Your task to perform on an android device: toggle priority inbox in the gmail app Image 0: 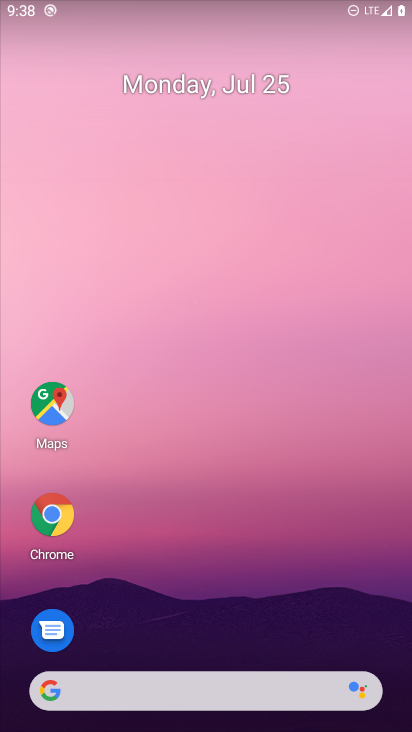
Step 0: drag from (29, 657) to (264, 0)
Your task to perform on an android device: toggle priority inbox in the gmail app Image 1: 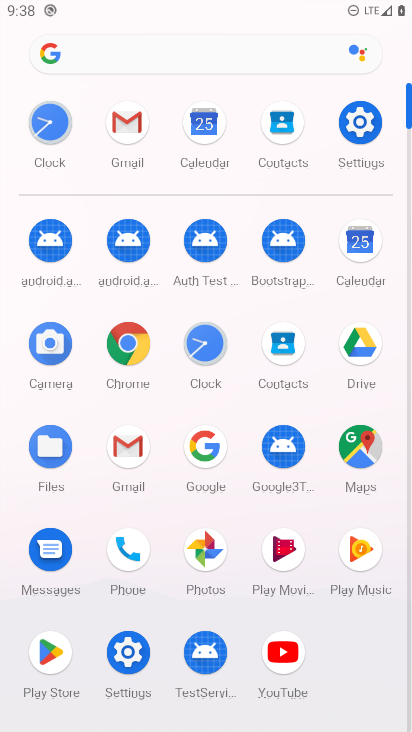
Step 1: click (126, 127)
Your task to perform on an android device: toggle priority inbox in the gmail app Image 2: 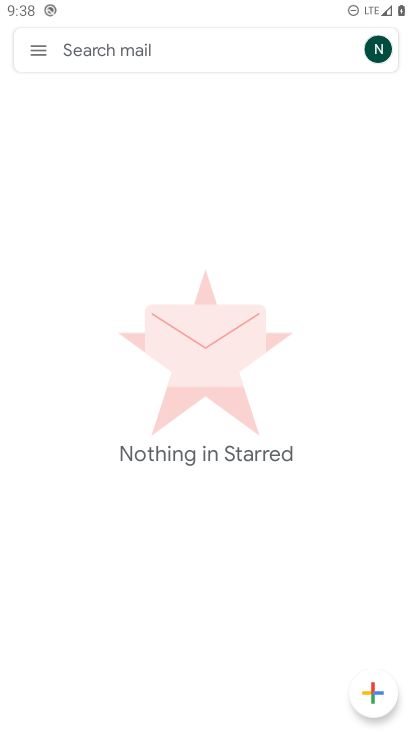
Step 2: click (43, 42)
Your task to perform on an android device: toggle priority inbox in the gmail app Image 3: 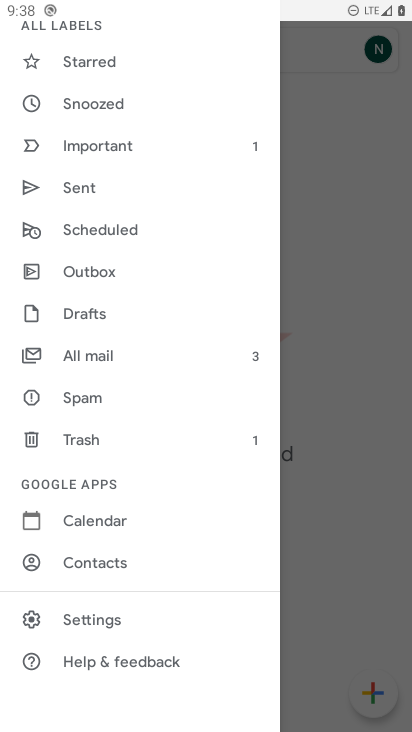
Step 3: click (113, 630)
Your task to perform on an android device: toggle priority inbox in the gmail app Image 4: 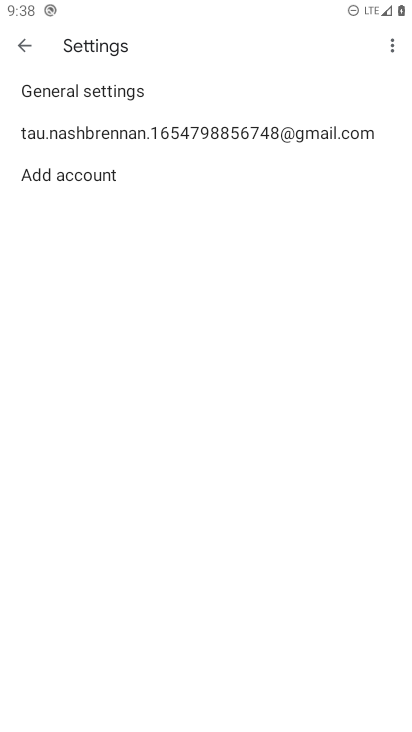
Step 4: click (82, 131)
Your task to perform on an android device: toggle priority inbox in the gmail app Image 5: 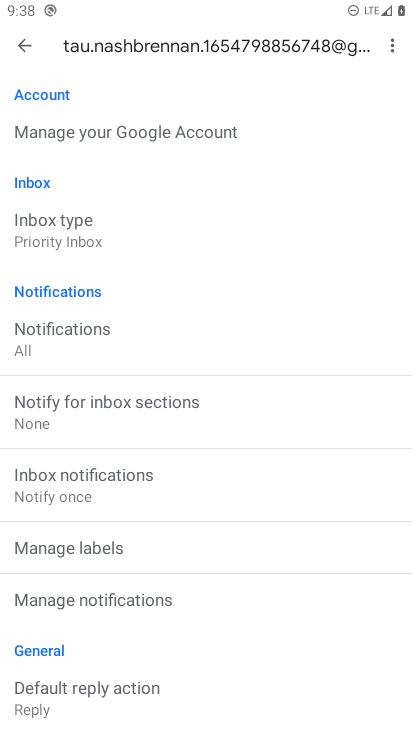
Step 5: task complete